Your task to perform on an android device: Open Wikipedia Image 0: 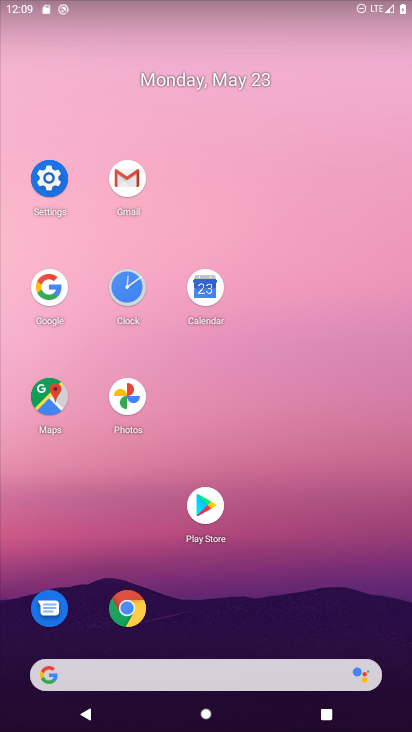
Step 0: click (134, 615)
Your task to perform on an android device: Open Wikipedia Image 1: 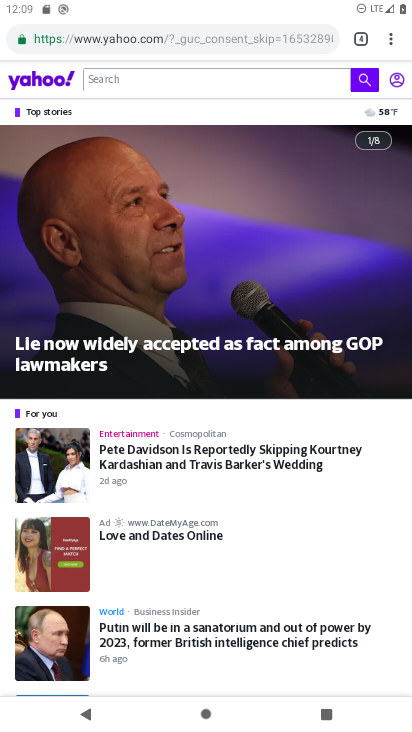
Step 1: click (361, 50)
Your task to perform on an android device: Open Wikipedia Image 2: 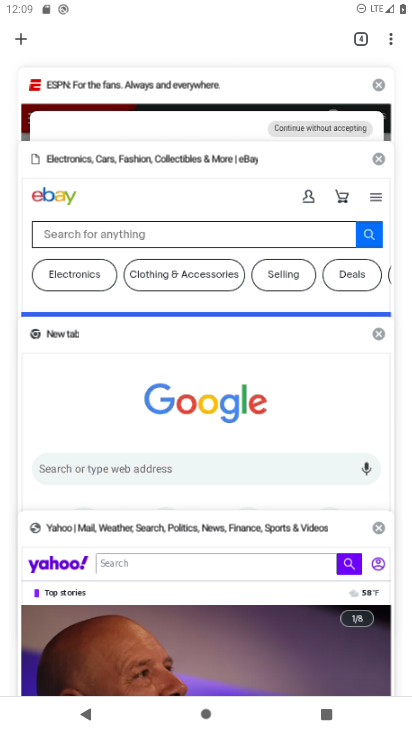
Step 2: drag from (241, 249) to (222, 516)
Your task to perform on an android device: Open Wikipedia Image 3: 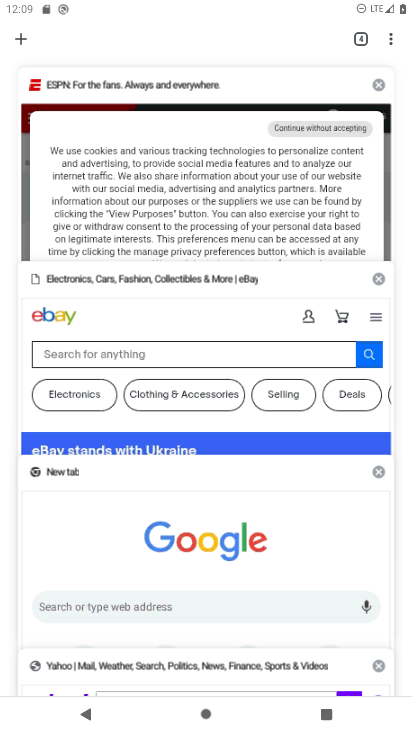
Step 3: click (25, 53)
Your task to perform on an android device: Open Wikipedia Image 4: 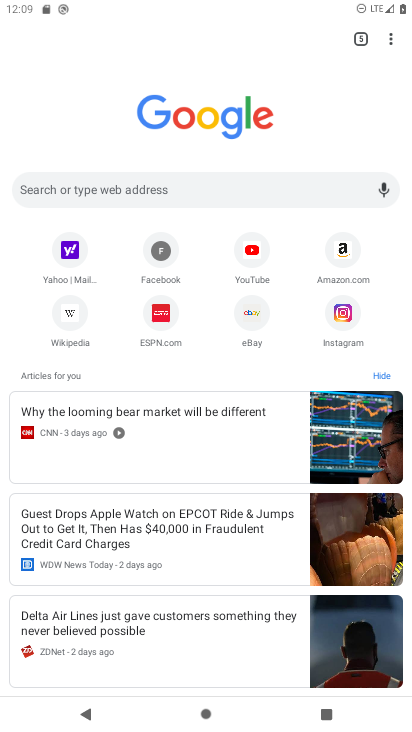
Step 4: click (67, 309)
Your task to perform on an android device: Open Wikipedia Image 5: 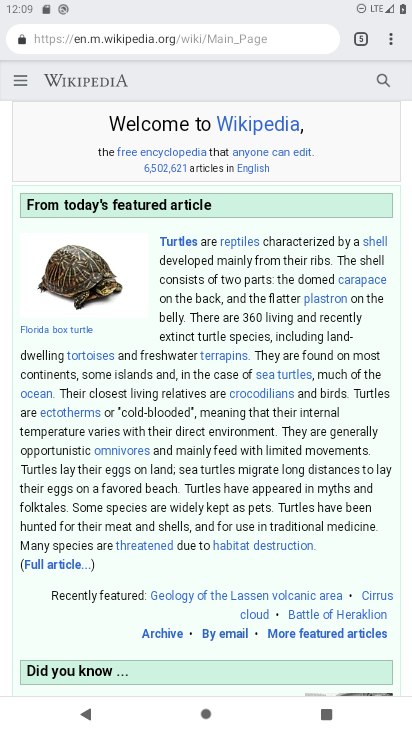
Step 5: task complete